Your task to perform on an android device: toggle pop-ups in chrome Image 0: 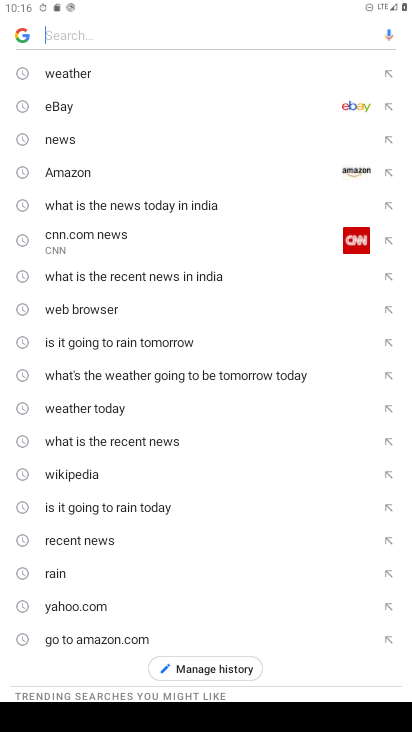
Step 0: press home button
Your task to perform on an android device: toggle pop-ups in chrome Image 1: 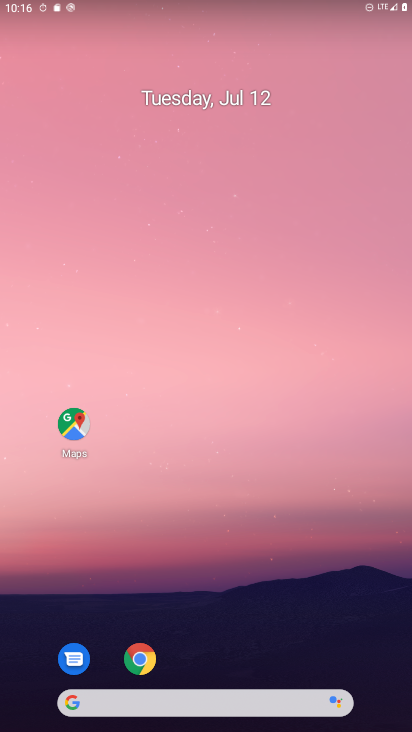
Step 1: drag from (379, 708) to (233, 4)
Your task to perform on an android device: toggle pop-ups in chrome Image 2: 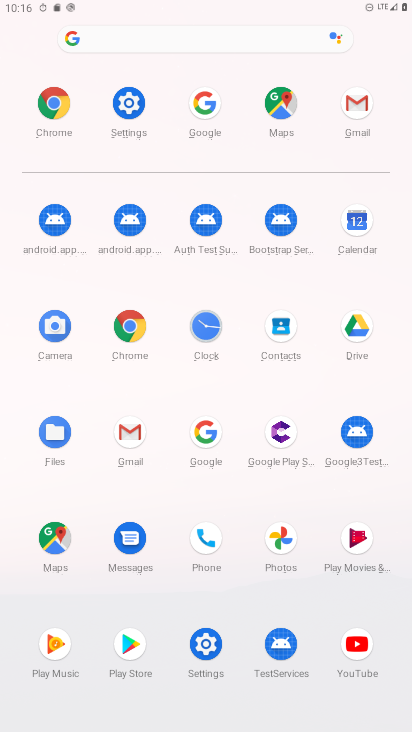
Step 2: click (135, 343)
Your task to perform on an android device: toggle pop-ups in chrome Image 3: 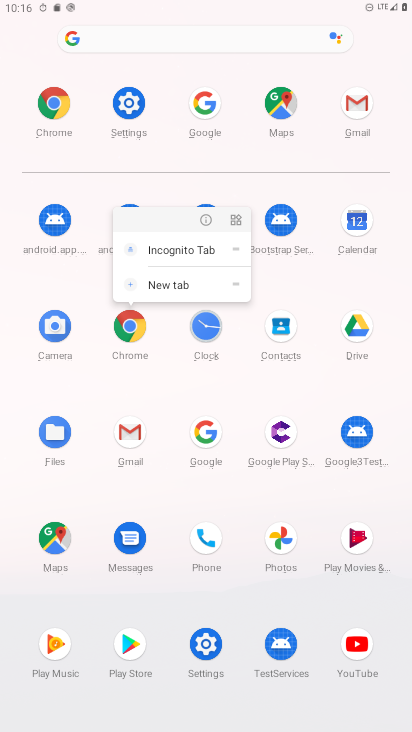
Step 3: click (135, 343)
Your task to perform on an android device: toggle pop-ups in chrome Image 4: 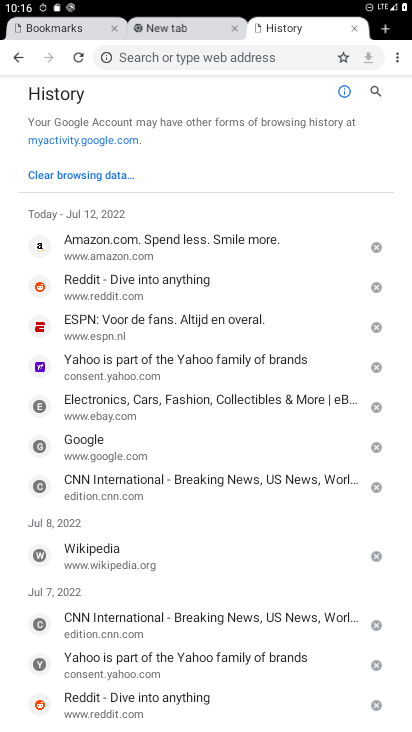
Step 4: click (394, 56)
Your task to perform on an android device: toggle pop-ups in chrome Image 5: 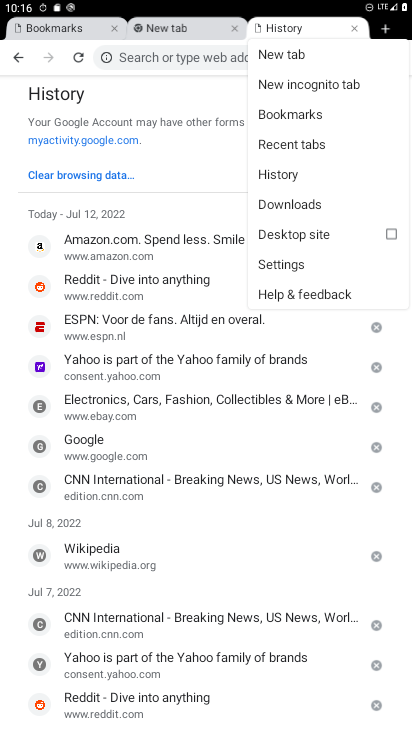
Step 5: click (302, 266)
Your task to perform on an android device: toggle pop-ups in chrome Image 6: 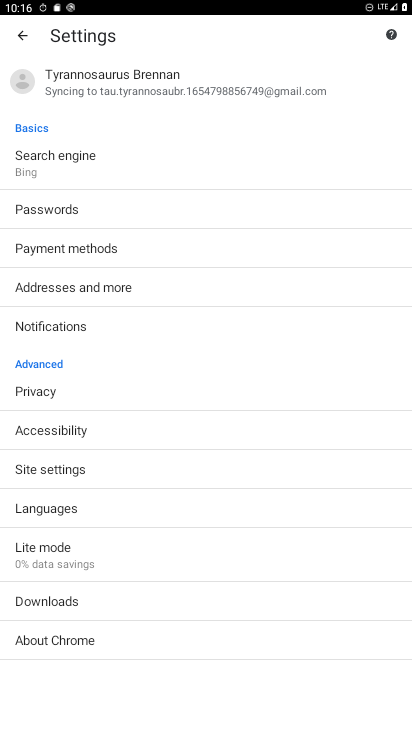
Step 6: click (174, 468)
Your task to perform on an android device: toggle pop-ups in chrome Image 7: 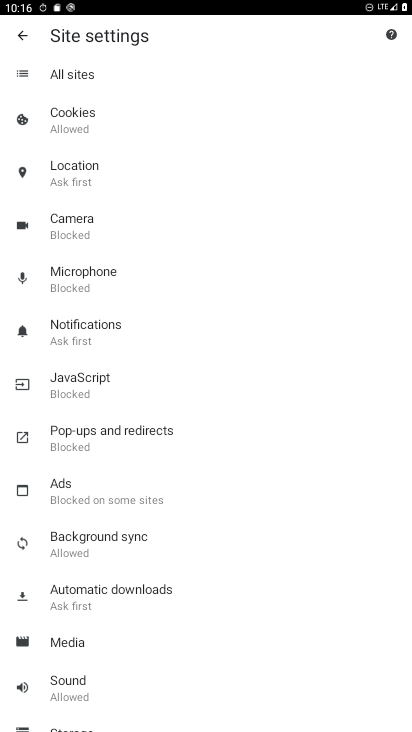
Step 7: click (160, 438)
Your task to perform on an android device: toggle pop-ups in chrome Image 8: 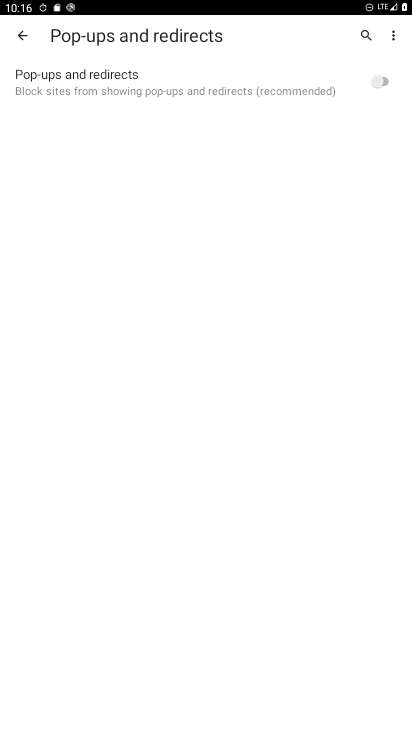
Step 8: click (365, 82)
Your task to perform on an android device: toggle pop-ups in chrome Image 9: 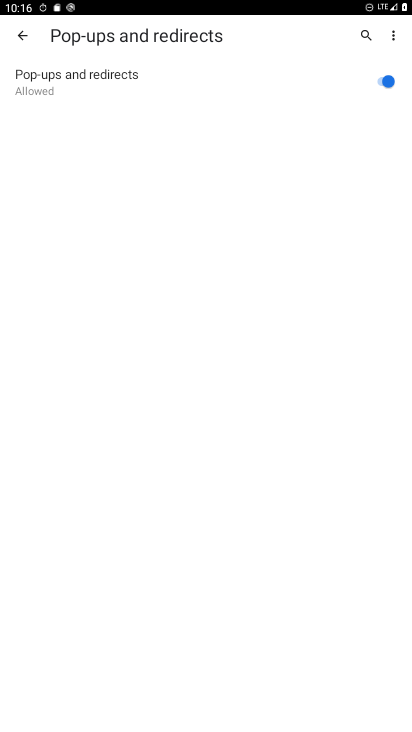
Step 9: task complete